Your task to perform on an android device: What's the weather? Image 0: 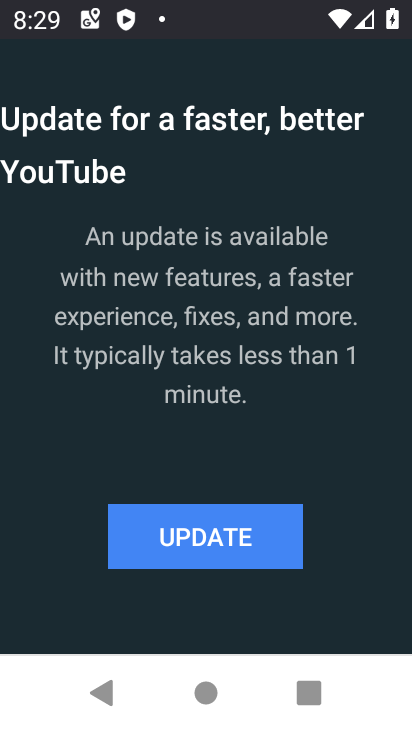
Step 0: press home button
Your task to perform on an android device: What's the weather? Image 1: 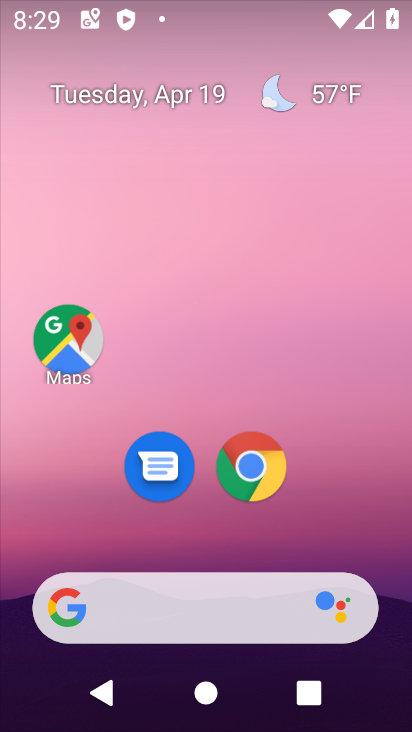
Step 1: click (277, 96)
Your task to perform on an android device: What's the weather? Image 2: 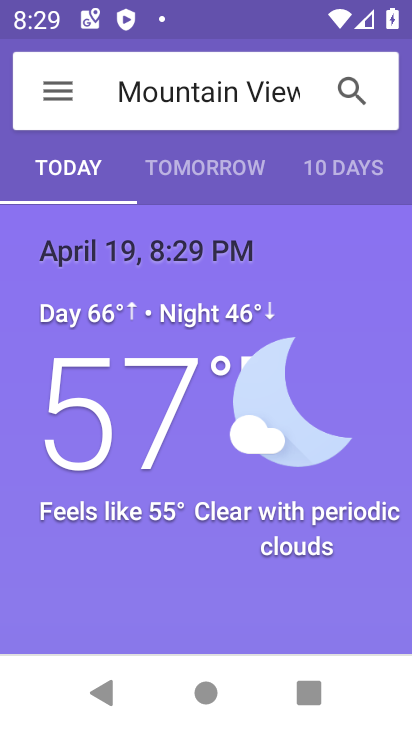
Step 2: task complete